Your task to perform on an android device: search for starred emails in the gmail app Image 0: 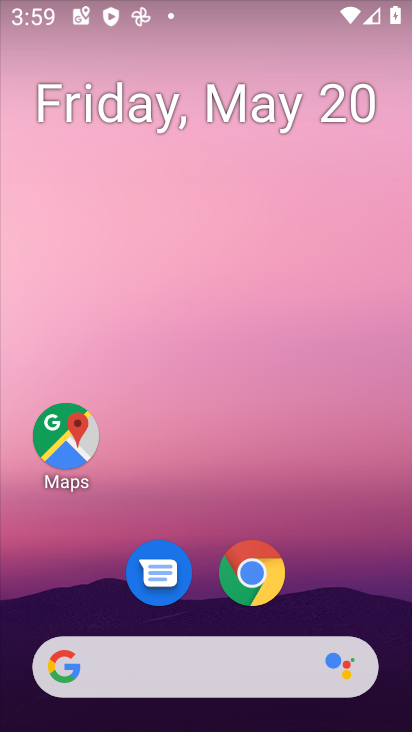
Step 0: drag from (393, 618) to (335, 24)
Your task to perform on an android device: search for starred emails in the gmail app Image 1: 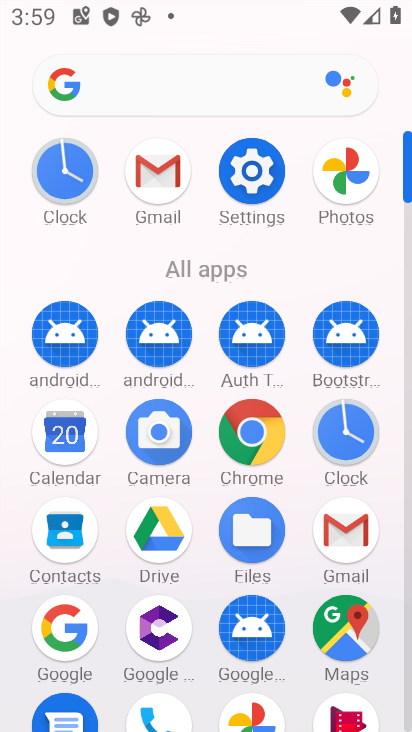
Step 1: click (408, 711)
Your task to perform on an android device: search for starred emails in the gmail app Image 2: 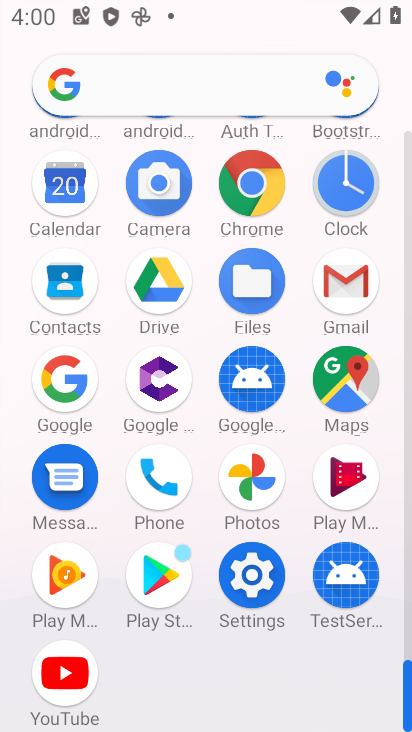
Step 2: click (346, 278)
Your task to perform on an android device: search for starred emails in the gmail app Image 3: 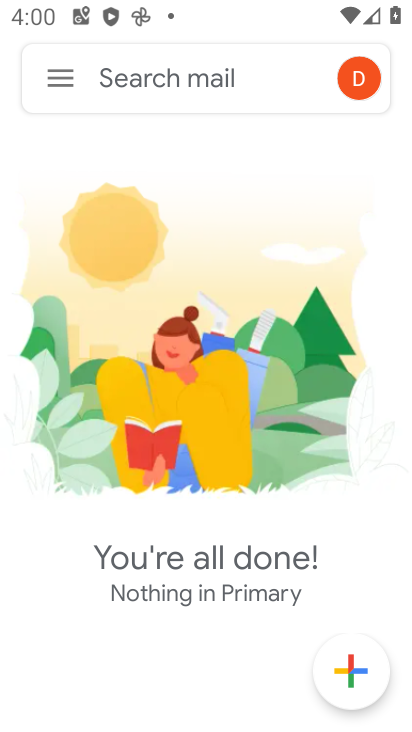
Step 3: click (60, 81)
Your task to perform on an android device: search for starred emails in the gmail app Image 4: 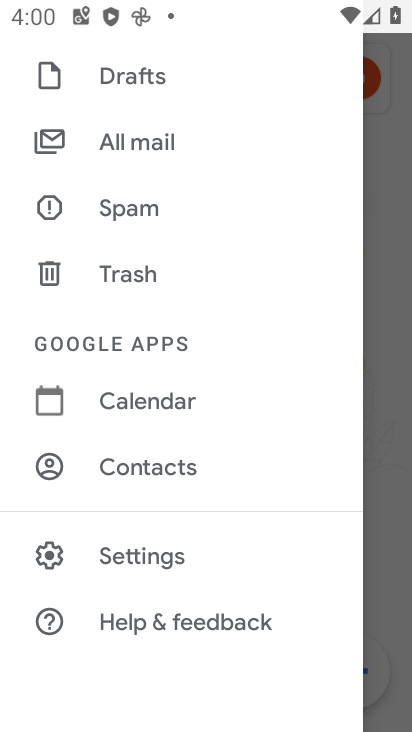
Step 4: drag from (271, 249) to (259, 571)
Your task to perform on an android device: search for starred emails in the gmail app Image 5: 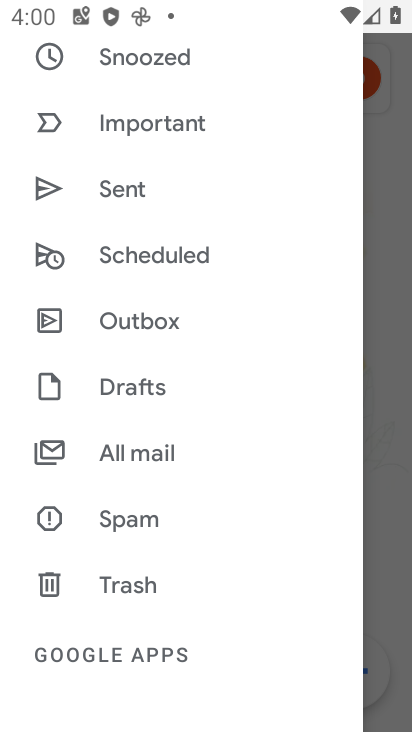
Step 5: drag from (295, 246) to (273, 462)
Your task to perform on an android device: search for starred emails in the gmail app Image 6: 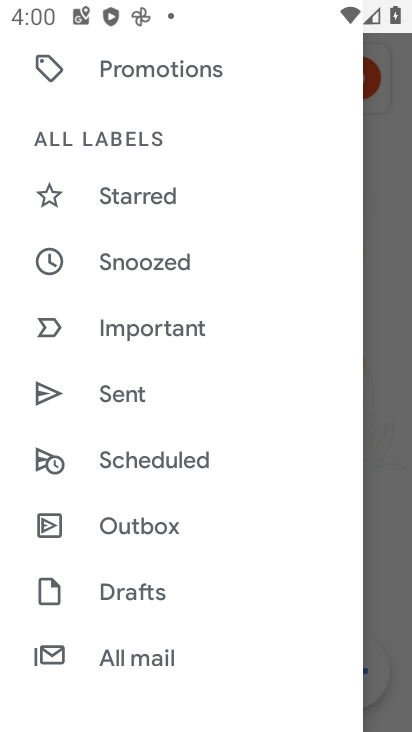
Step 6: click (129, 190)
Your task to perform on an android device: search for starred emails in the gmail app Image 7: 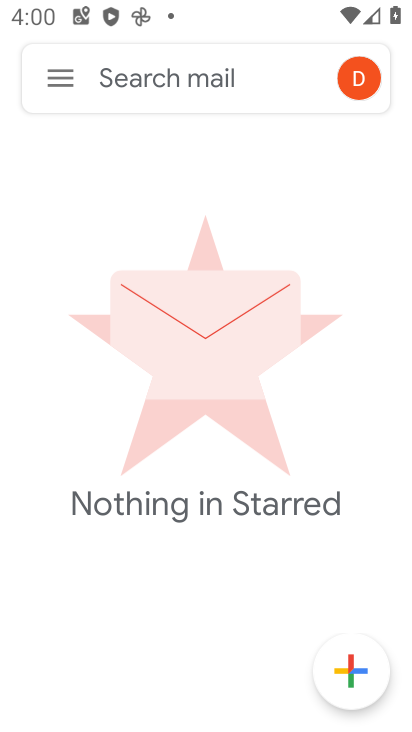
Step 7: task complete